Your task to perform on an android device: turn on improve location accuracy Image 0: 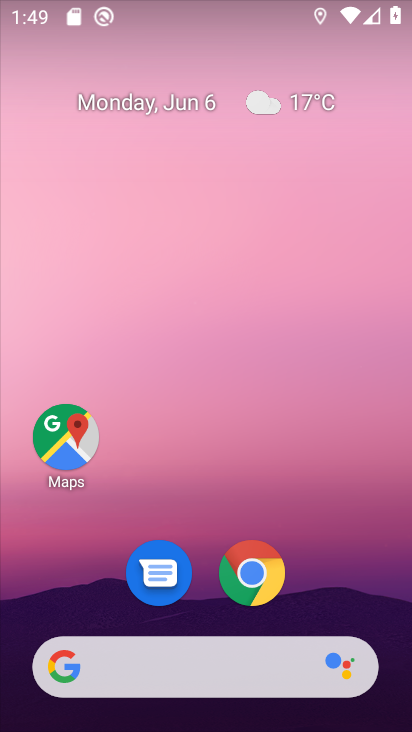
Step 0: drag from (399, 619) to (263, 16)
Your task to perform on an android device: turn on improve location accuracy Image 1: 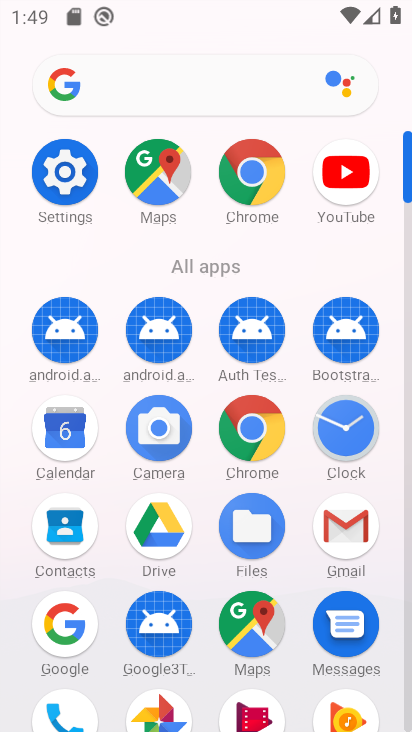
Step 1: click (75, 194)
Your task to perform on an android device: turn on improve location accuracy Image 2: 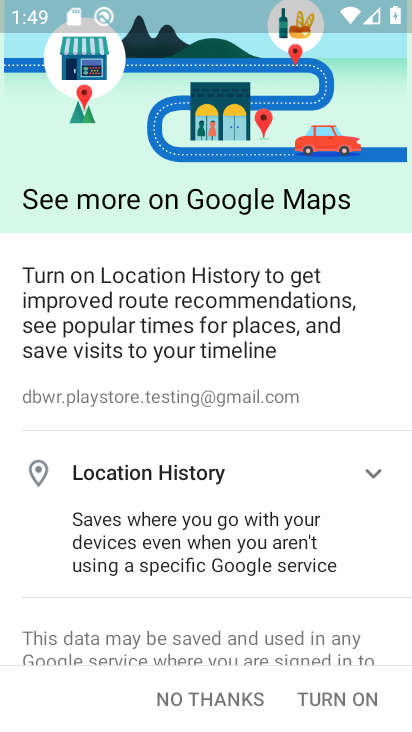
Step 2: press home button
Your task to perform on an android device: turn on improve location accuracy Image 3: 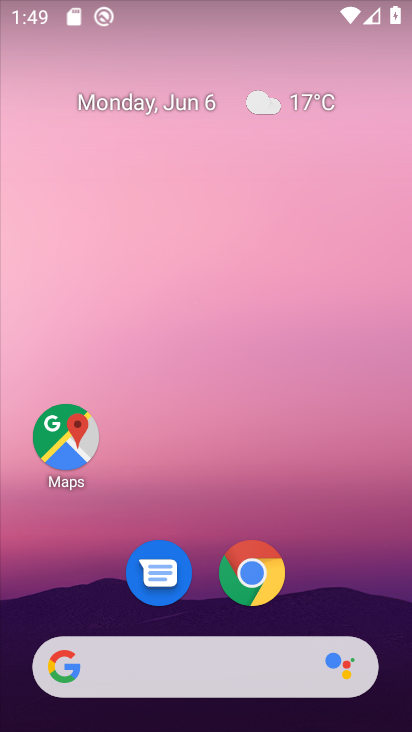
Step 3: drag from (386, 627) to (401, 232)
Your task to perform on an android device: turn on improve location accuracy Image 4: 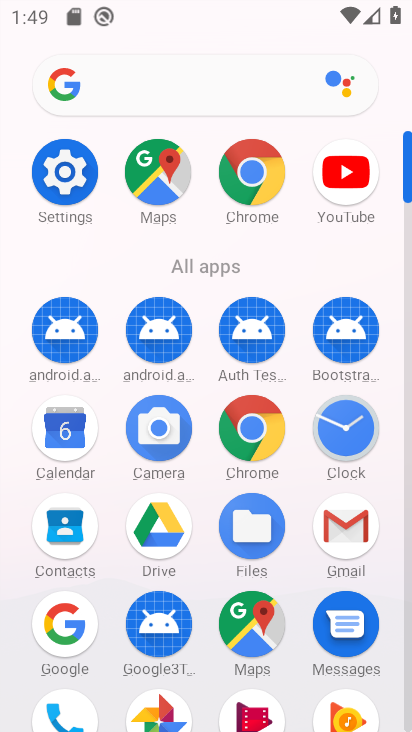
Step 4: click (83, 164)
Your task to perform on an android device: turn on improve location accuracy Image 5: 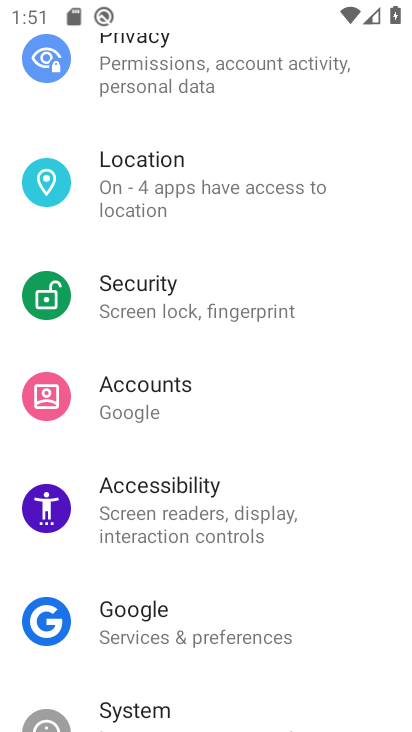
Step 5: click (142, 197)
Your task to perform on an android device: turn on improve location accuracy Image 6: 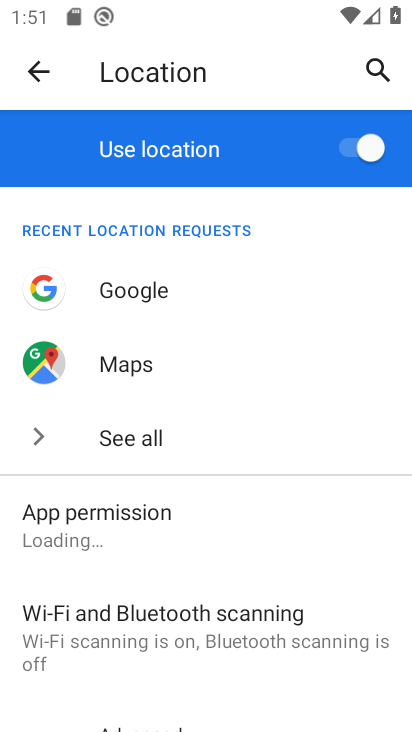
Step 6: drag from (119, 638) to (165, 226)
Your task to perform on an android device: turn on improve location accuracy Image 7: 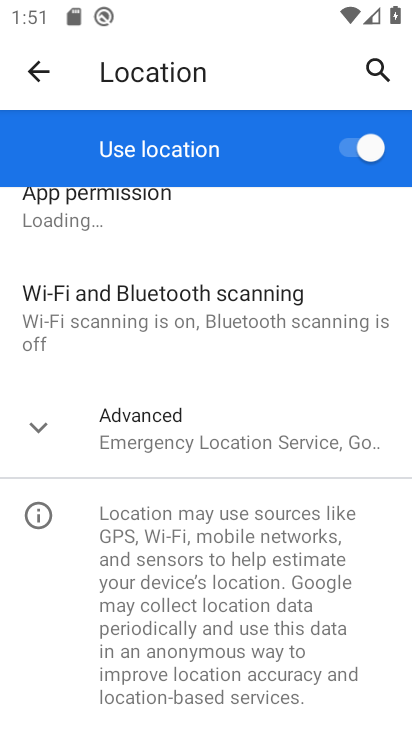
Step 7: click (125, 440)
Your task to perform on an android device: turn on improve location accuracy Image 8: 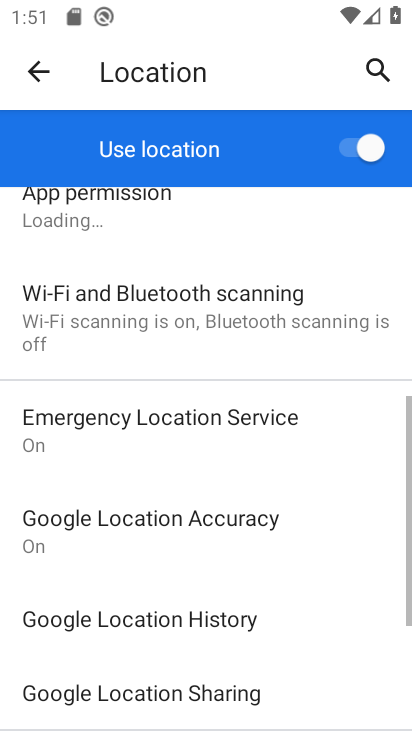
Step 8: click (160, 546)
Your task to perform on an android device: turn on improve location accuracy Image 9: 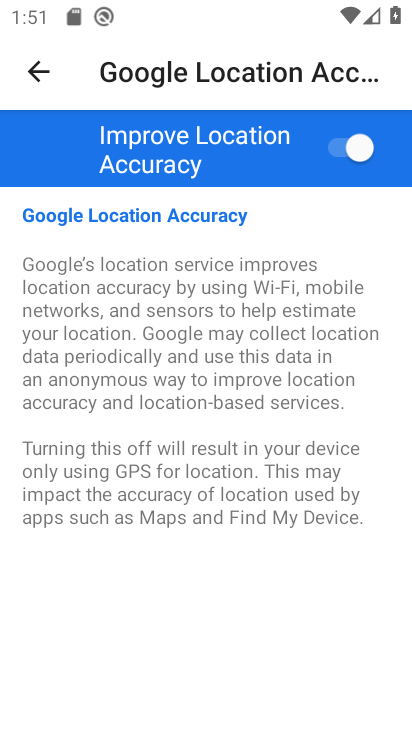
Step 9: task complete